Your task to perform on an android device: What's the news in Puerto Rico? Image 0: 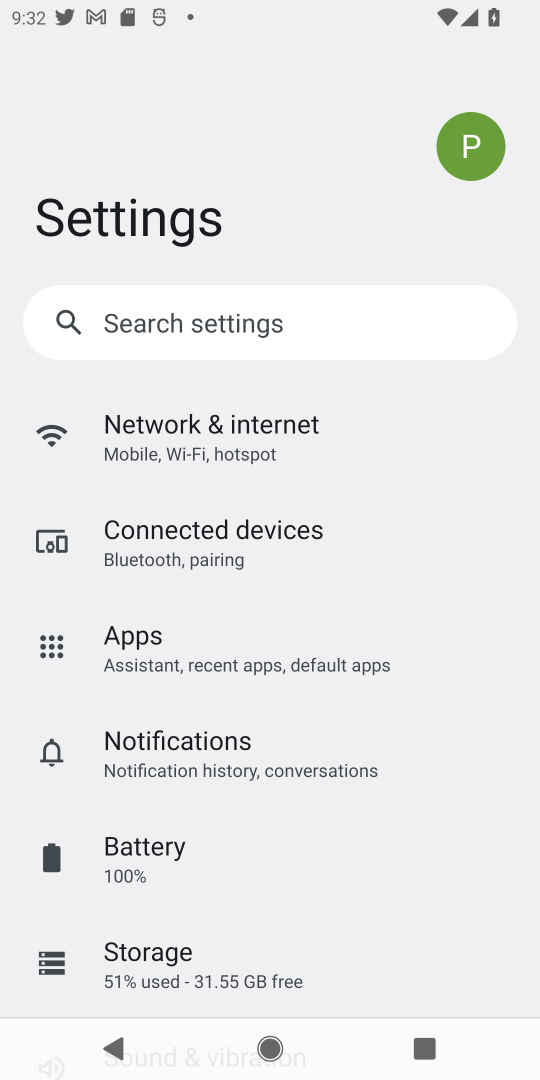
Step 0: press home button
Your task to perform on an android device: What's the news in Puerto Rico? Image 1: 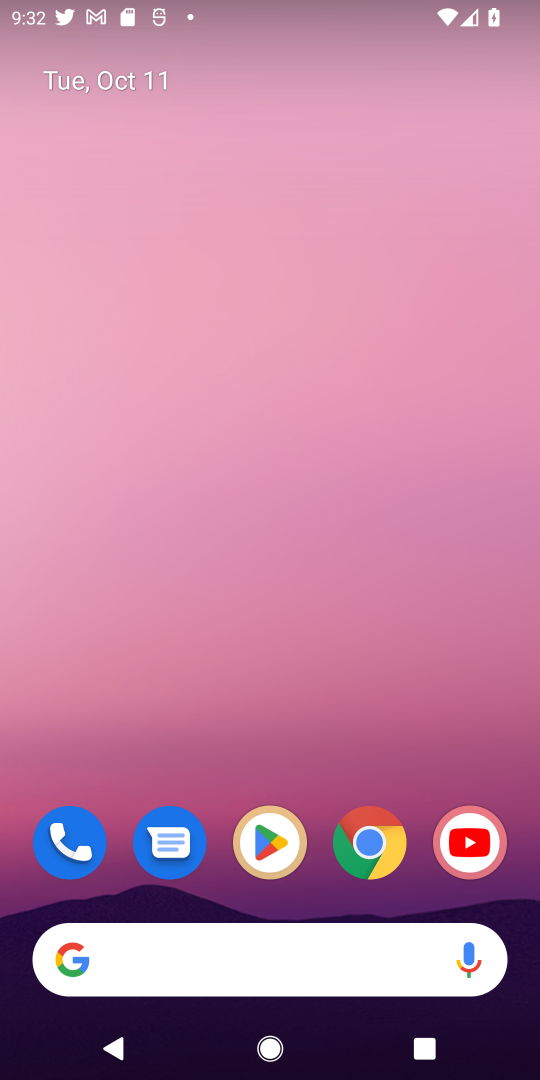
Step 1: click (374, 867)
Your task to perform on an android device: What's the news in Puerto Rico? Image 2: 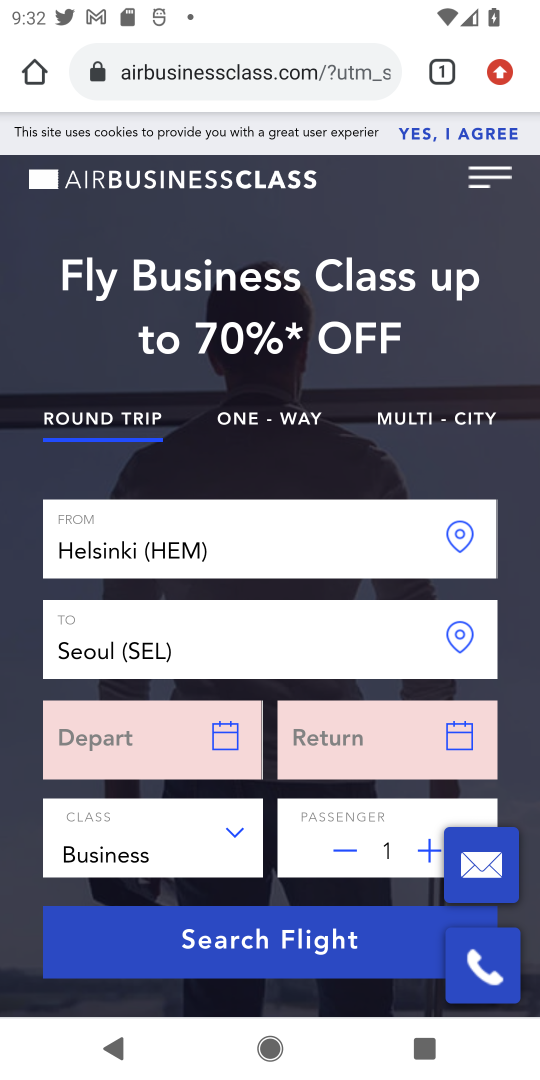
Step 2: click (300, 65)
Your task to perform on an android device: What's the news in Puerto Rico? Image 3: 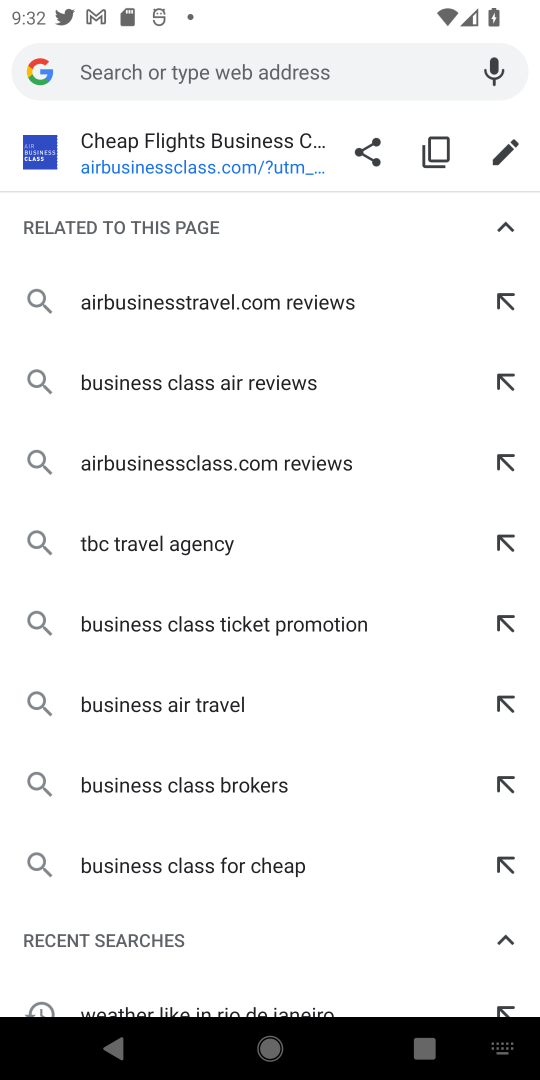
Step 3: type "what the news in puerto rico"
Your task to perform on an android device: What's the news in Puerto Rico? Image 4: 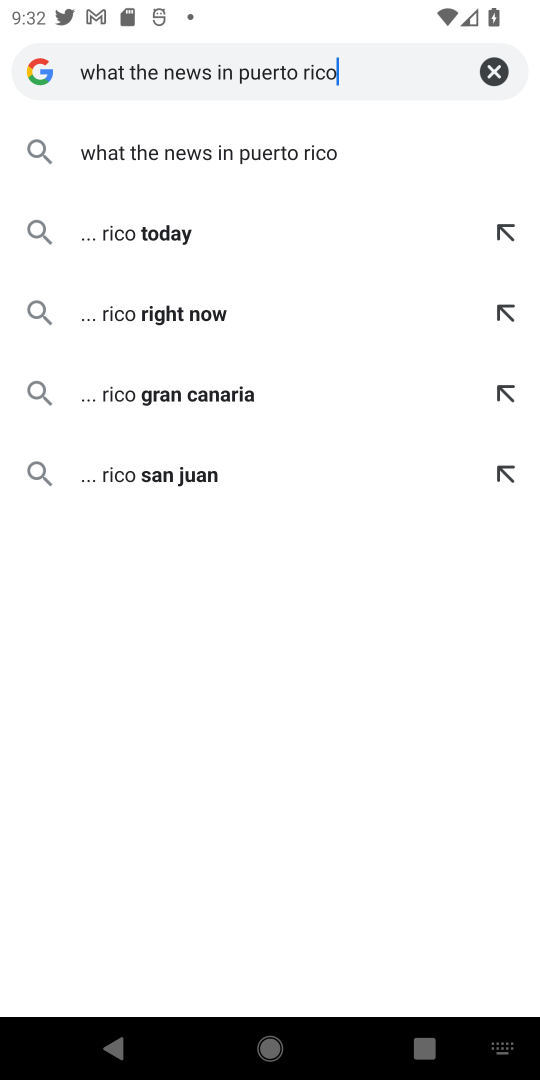
Step 4: click (230, 156)
Your task to perform on an android device: What's the news in Puerto Rico? Image 5: 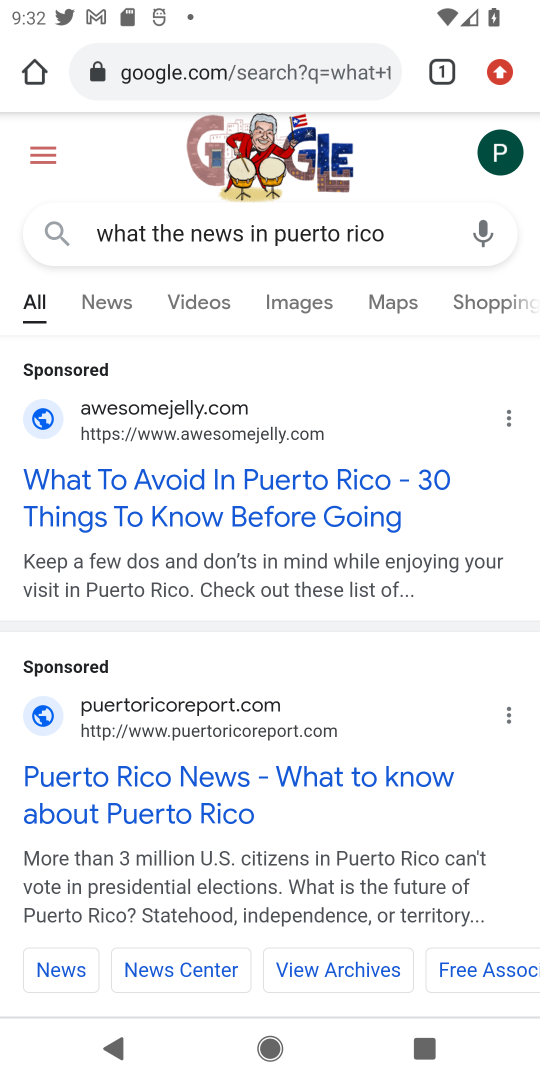
Step 5: click (83, 775)
Your task to perform on an android device: What's the news in Puerto Rico? Image 6: 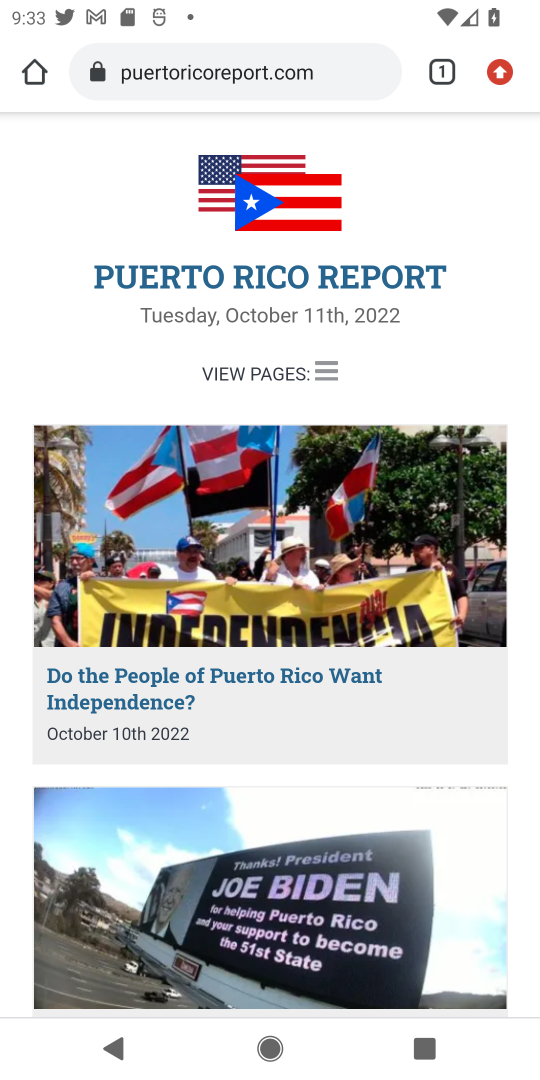
Step 6: drag from (213, 588) to (310, 218)
Your task to perform on an android device: What's the news in Puerto Rico? Image 7: 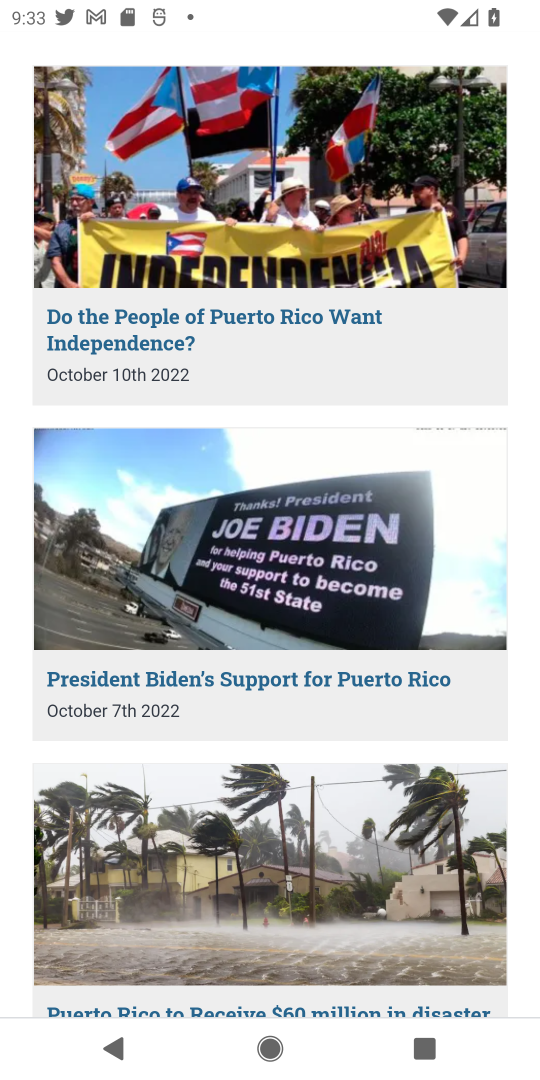
Step 7: drag from (216, 645) to (345, 156)
Your task to perform on an android device: What's the news in Puerto Rico? Image 8: 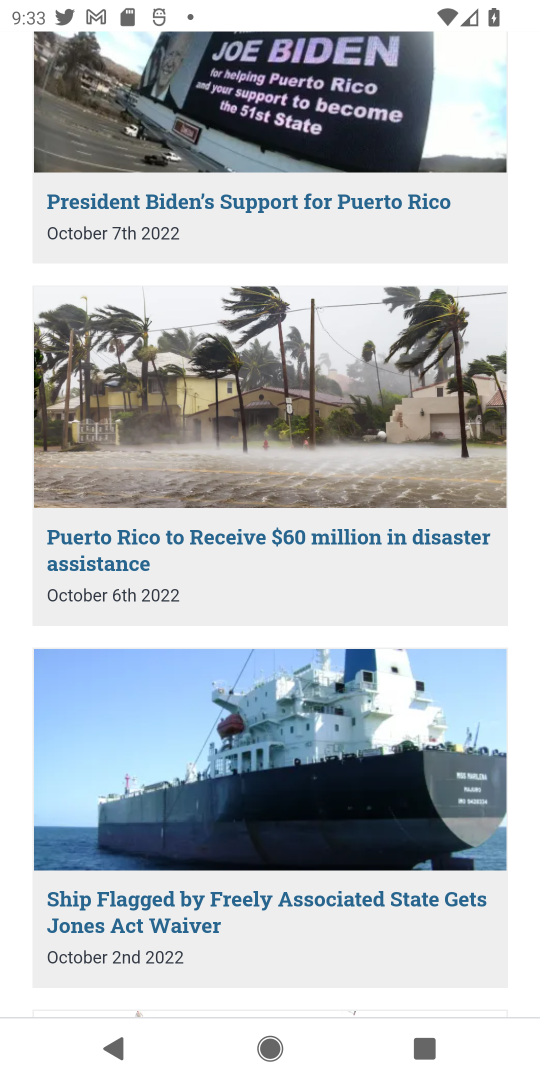
Step 8: drag from (309, 323) to (267, 971)
Your task to perform on an android device: What's the news in Puerto Rico? Image 9: 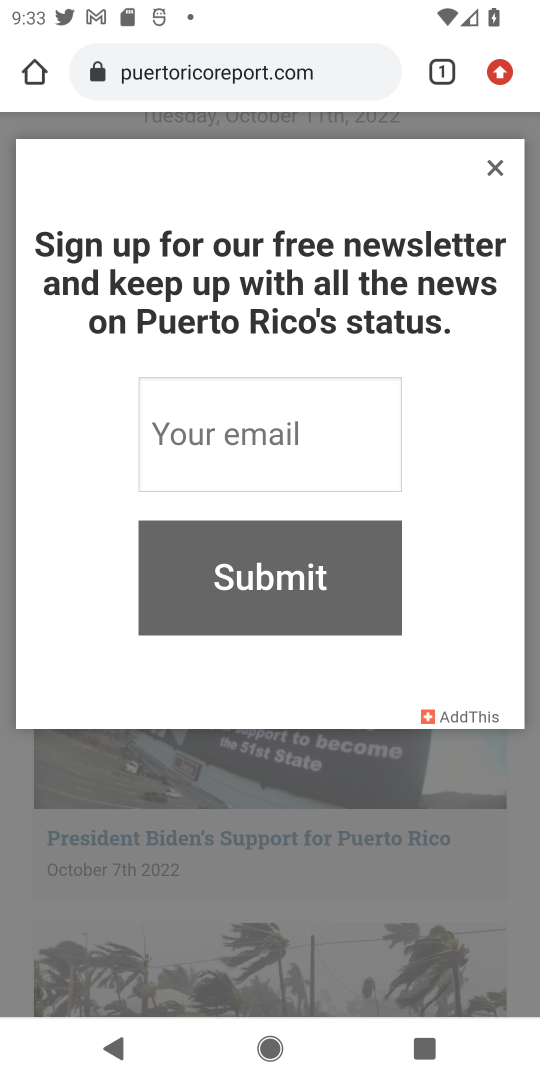
Step 9: click (490, 163)
Your task to perform on an android device: What's the news in Puerto Rico? Image 10: 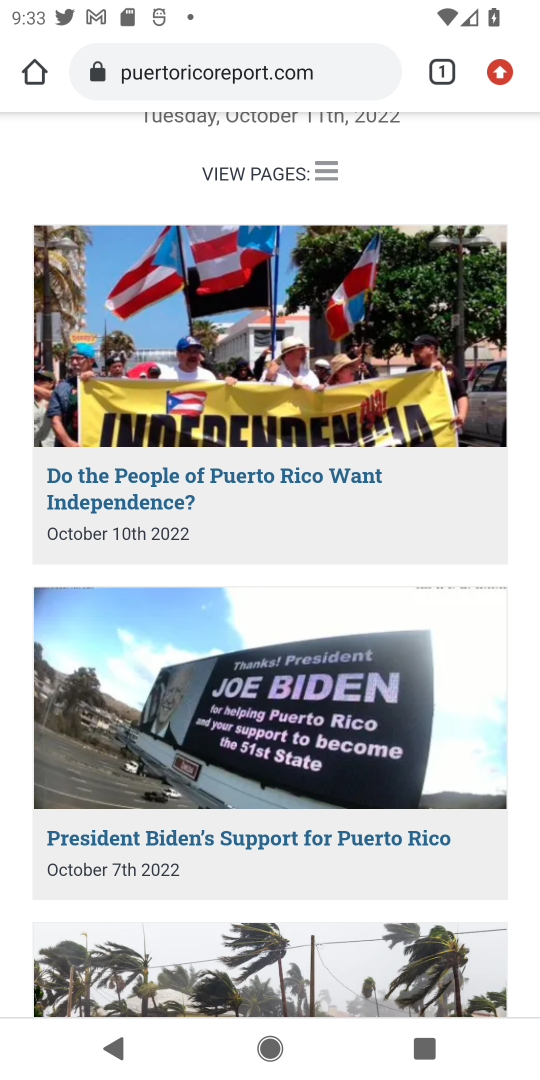
Step 10: drag from (282, 454) to (12, 733)
Your task to perform on an android device: What's the news in Puerto Rico? Image 11: 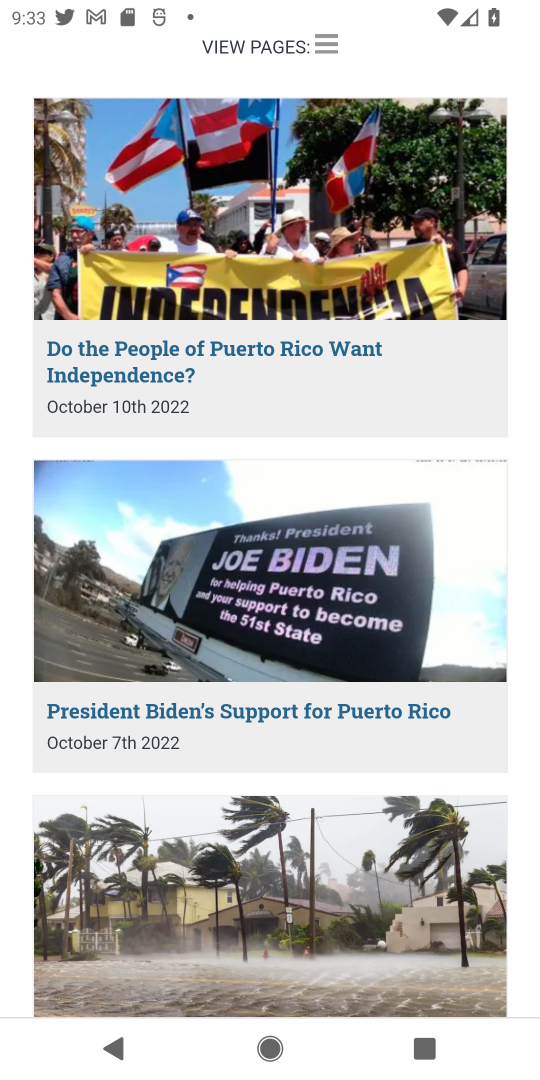
Step 11: drag from (268, 522) to (349, 183)
Your task to perform on an android device: What's the news in Puerto Rico? Image 12: 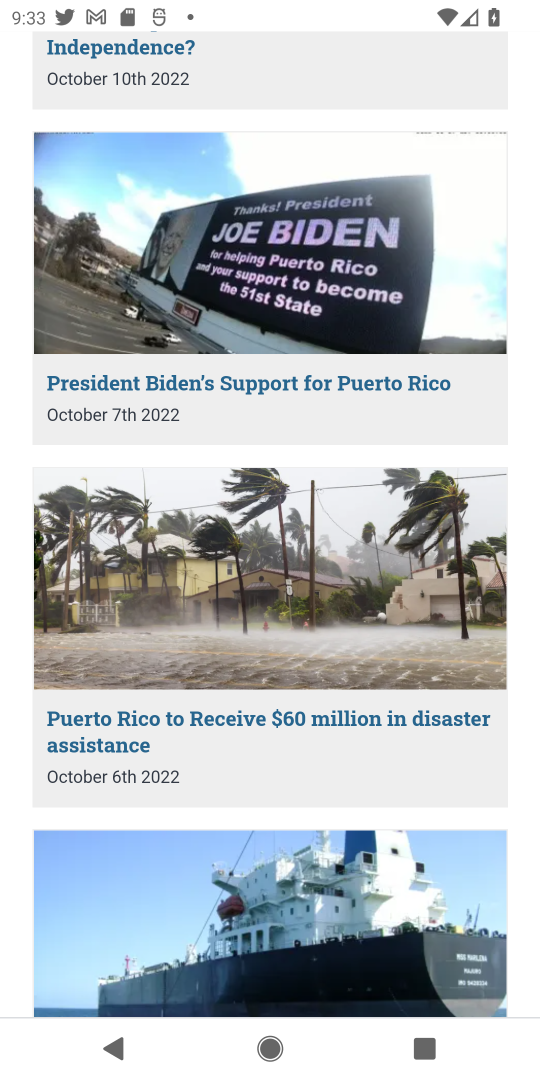
Step 12: drag from (352, 181) to (249, 1020)
Your task to perform on an android device: What's the news in Puerto Rico? Image 13: 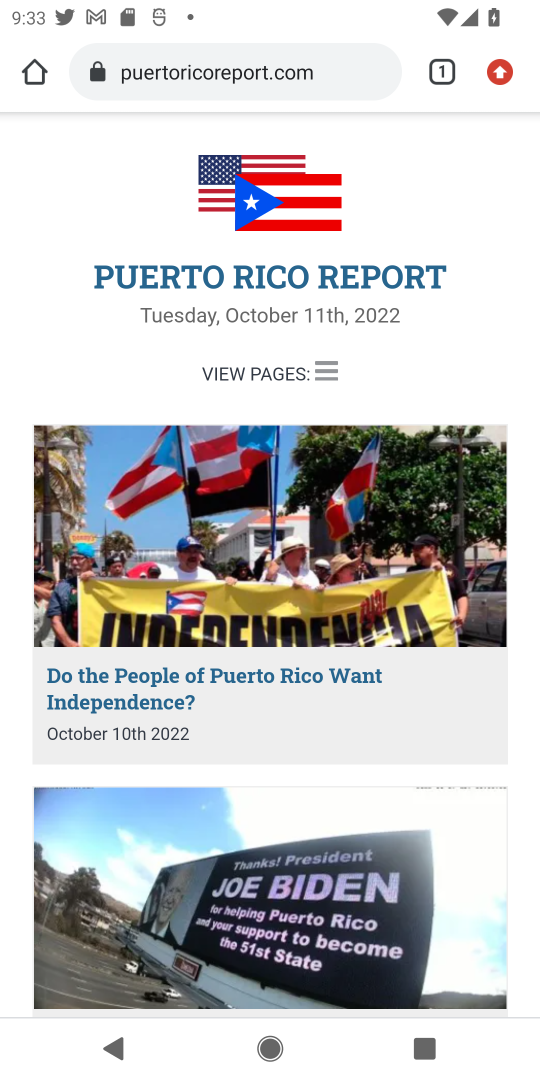
Step 13: click (174, 617)
Your task to perform on an android device: What's the news in Puerto Rico? Image 14: 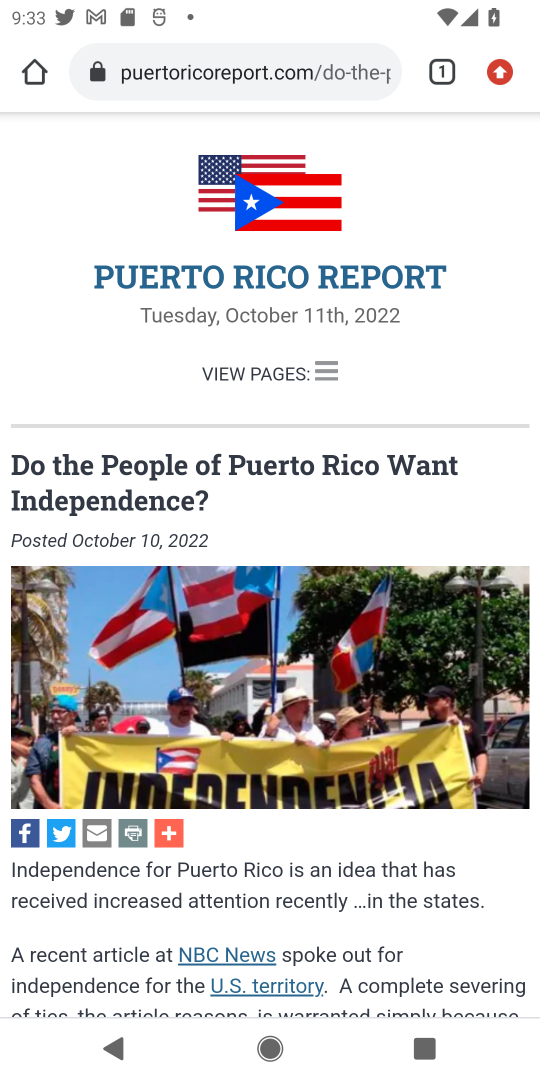
Step 14: task complete